Your task to perform on an android device: Open calendar and show me the fourth week of next month Image 0: 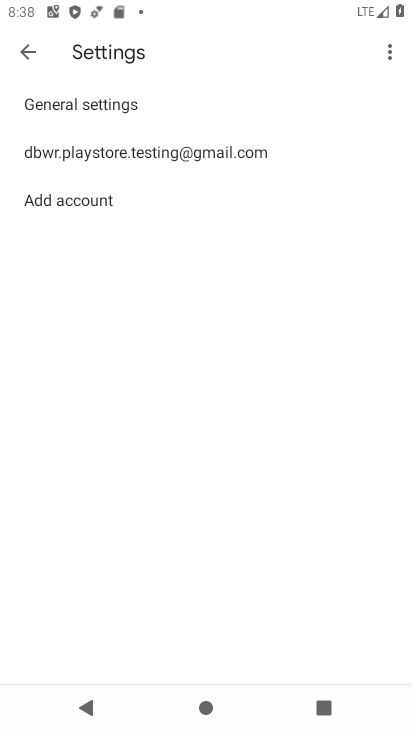
Step 0: press home button
Your task to perform on an android device: Open calendar and show me the fourth week of next month Image 1: 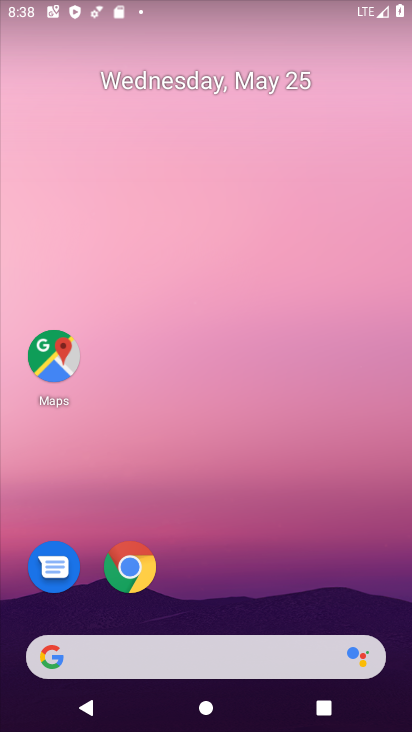
Step 1: drag from (266, 531) to (252, 51)
Your task to perform on an android device: Open calendar and show me the fourth week of next month Image 2: 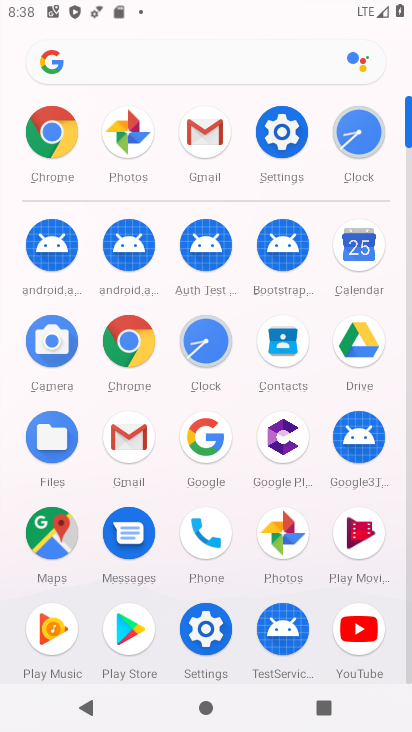
Step 2: click (358, 244)
Your task to perform on an android device: Open calendar and show me the fourth week of next month Image 3: 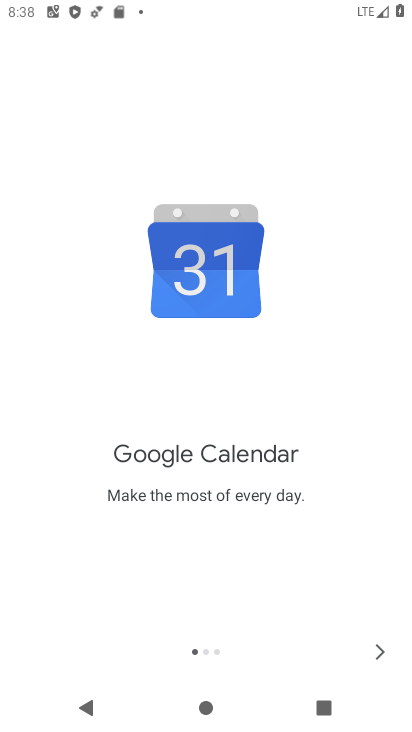
Step 3: click (372, 648)
Your task to perform on an android device: Open calendar and show me the fourth week of next month Image 4: 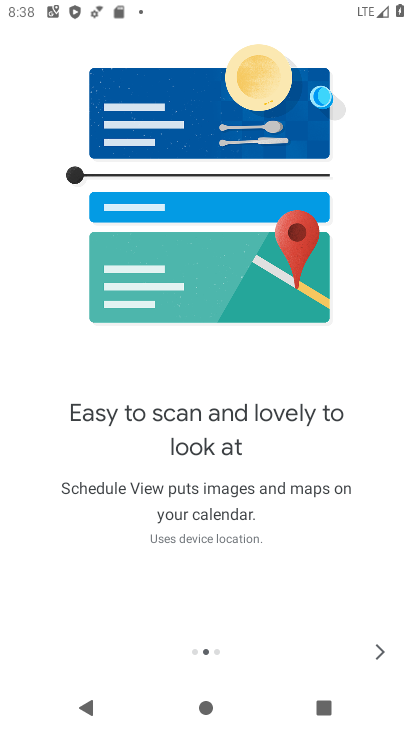
Step 4: click (378, 649)
Your task to perform on an android device: Open calendar and show me the fourth week of next month Image 5: 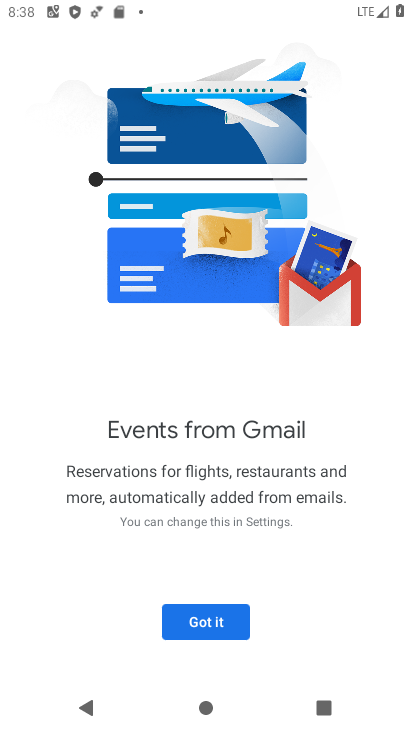
Step 5: click (218, 630)
Your task to perform on an android device: Open calendar and show me the fourth week of next month Image 6: 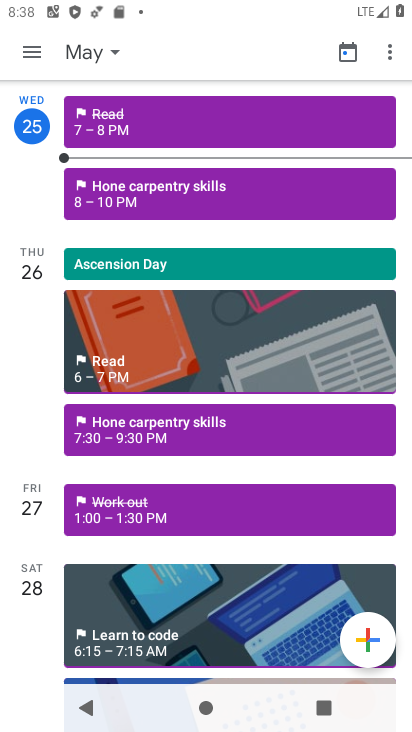
Step 6: click (34, 45)
Your task to perform on an android device: Open calendar and show me the fourth week of next month Image 7: 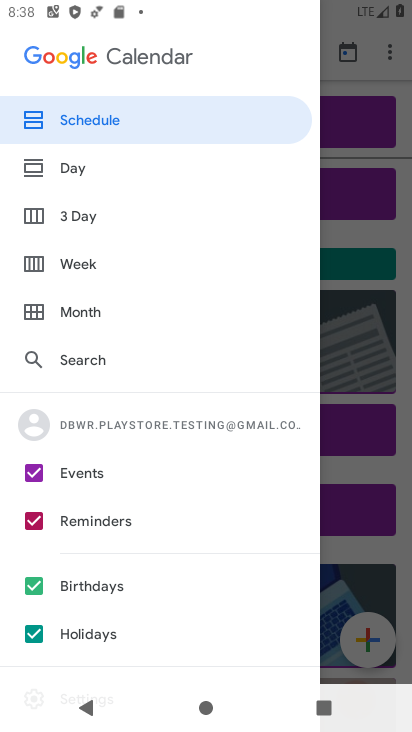
Step 7: click (54, 307)
Your task to perform on an android device: Open calendar and show me the fourth week of next month Image 8: 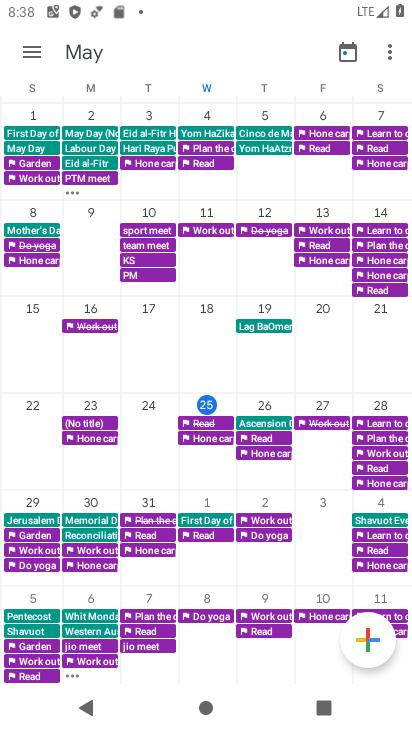
Step 8: click (33, 308)
Your task to perform on an android device: Open calendar and show me the fourth week of next month Image 9: 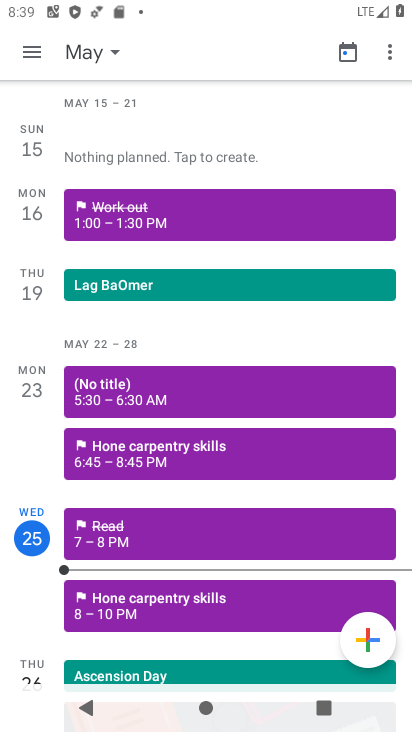
Step 9: press back button
Your task to perform on an android device: Open calendar and show me the fourth week of next month Image 10: 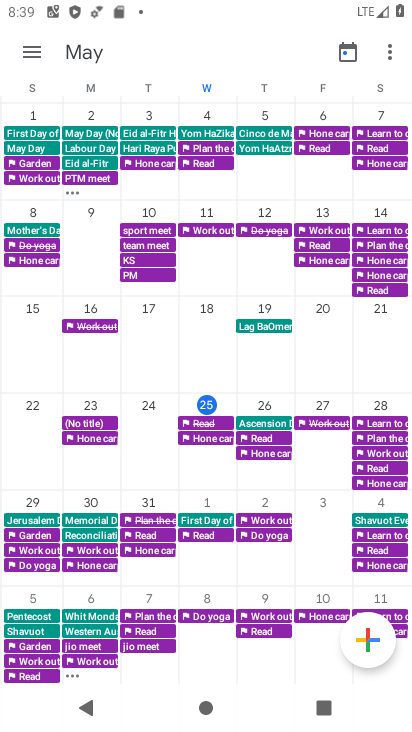
Step 10: drag from (352, 352) to (0, 321)
Your task to perform on an android device: Open calendar and show me the fourth week of next month Image 11: 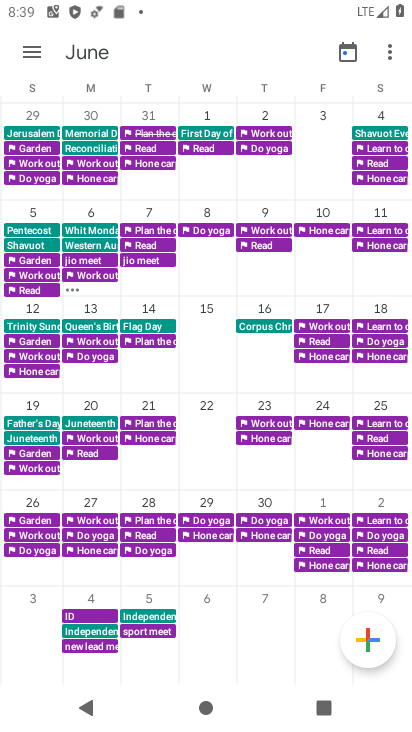
Step 11: click (48, 495)
Your task to perform on an android device: Open calendar and show me the fourth week of next month Image 12: 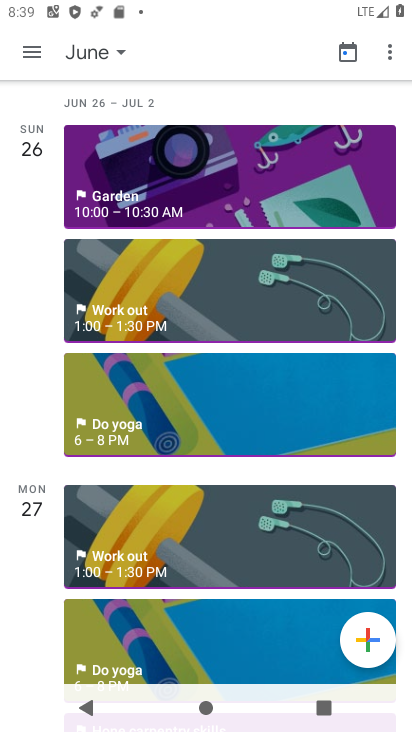
Step 12: click (36, 45)
Your task to perform on an android device: Open calendar and show me the fourth week of next month Image 13: 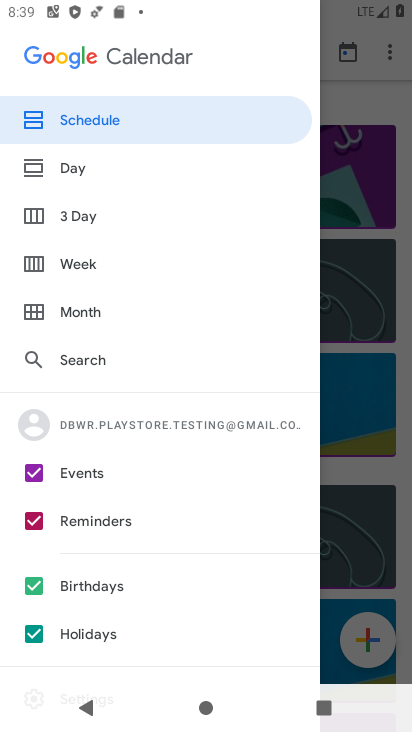
Step 13: click (29, 256)
Your task to perform on an android device: Open calendar and show me the fourth week of next month Image 14: 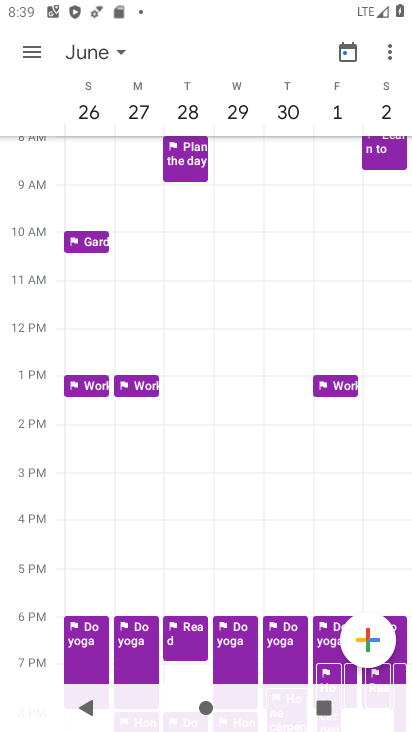
Step 14: task complete